Your task to perform on an android device: Open calendar and show me the fourth week of next month Image 0: 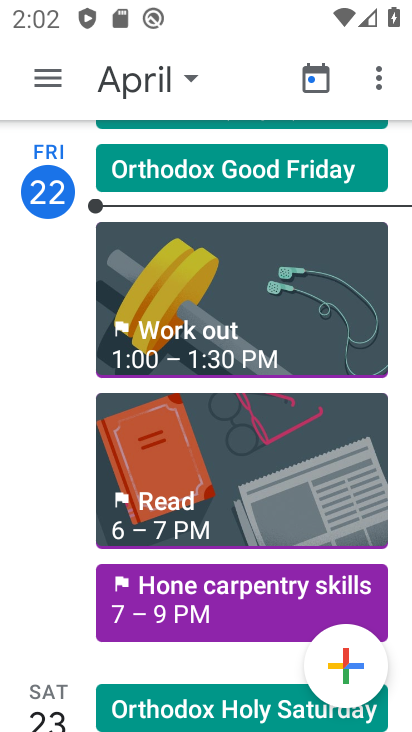
Step 0: press back button
Your task to perform on an android device: Open calendar and show me the fourth week of next month Image 1: 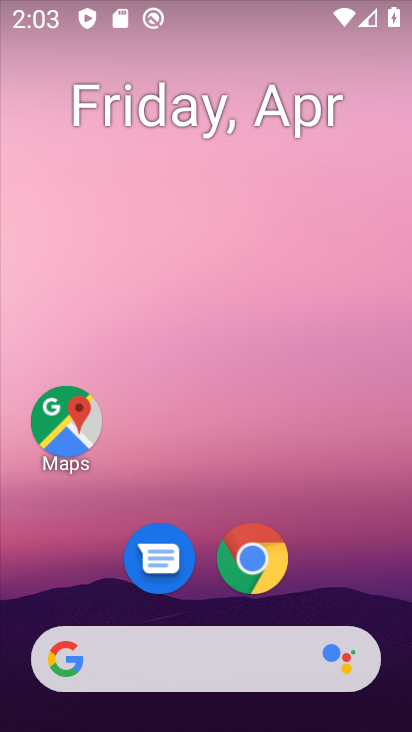
Step 1: drag from (221, 572) to (221, 58)
Your task to perform on an android device: Open calendar and show me the fourth week of next month Image 2: 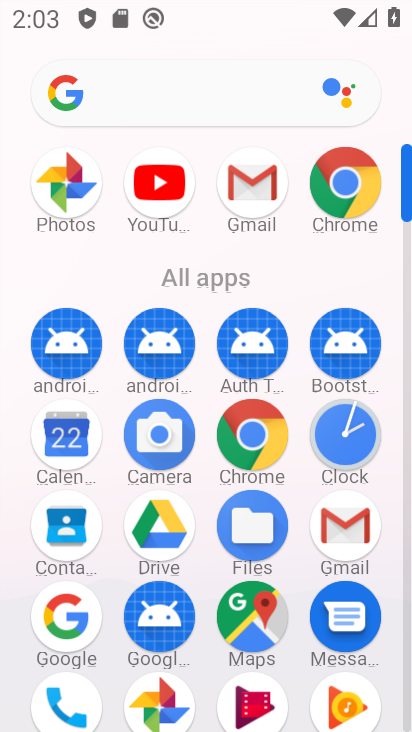
Step 2: click (68, 432)
Your task to perform on an android device: Open calendar and show me the fourth week of next month Image 3: 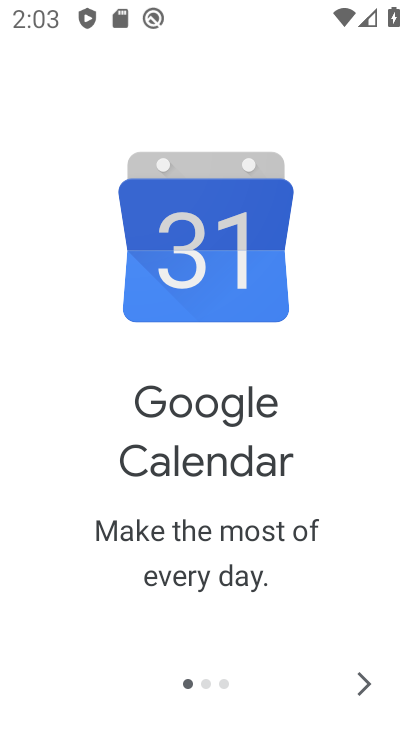
Step 3: click (354, 690)
Your task to perform on an android device: Open calendar and show me the fourth week of next month Image 4: 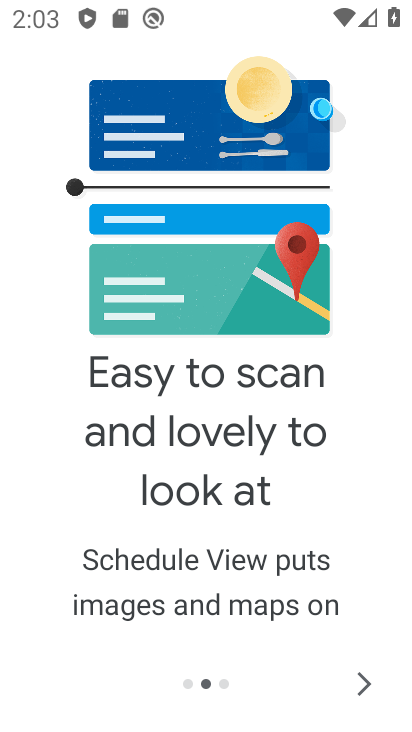
Step 4: click (361, 680)
Your task to perform on an android device: Open calendar and show me the fourth week of next month Image 5: 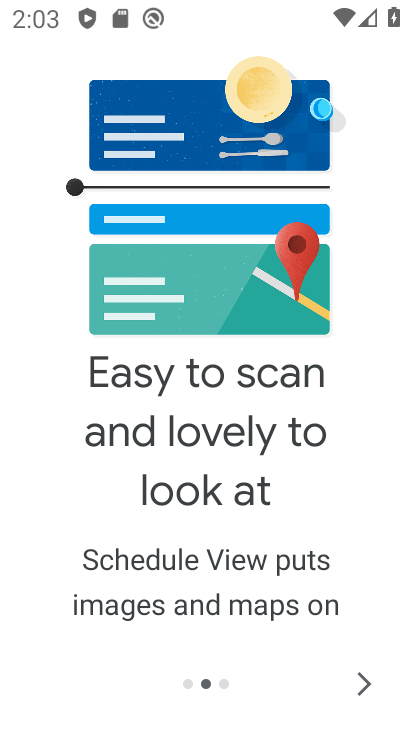
Step 5: click (361, 680)
Your task to perform on an android device: Open calendar and show me the fourth week of next month Image 6: 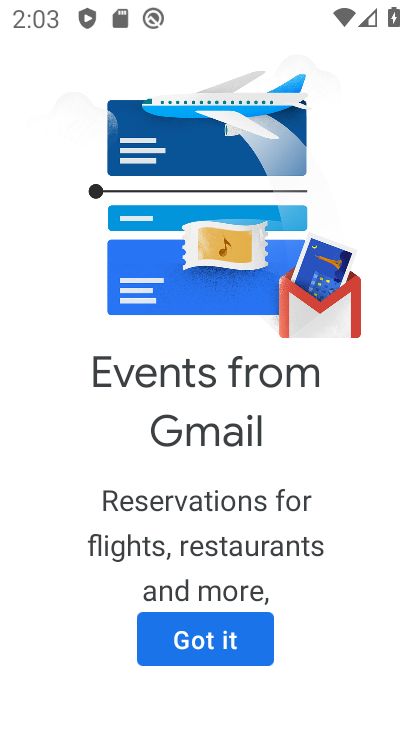
Step 6: click (231, 642)
Your task to perform on an android device: Open calendar and show me the fourth week of next month Image 7: 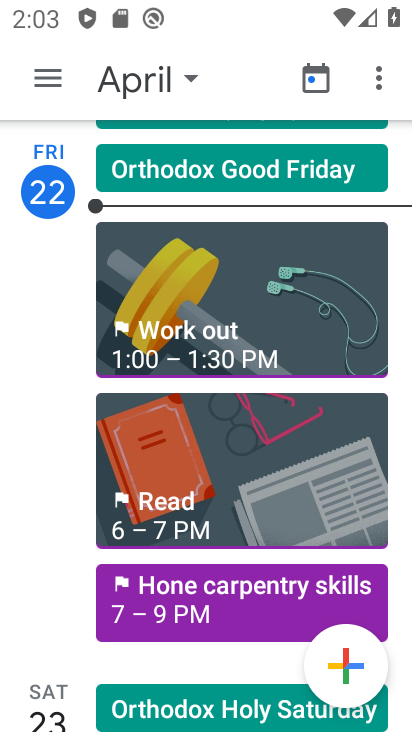
Step 7: click (189, 78)
Your task to perform on an android device: Open calendar and show me the fourth week of next month Image 8: 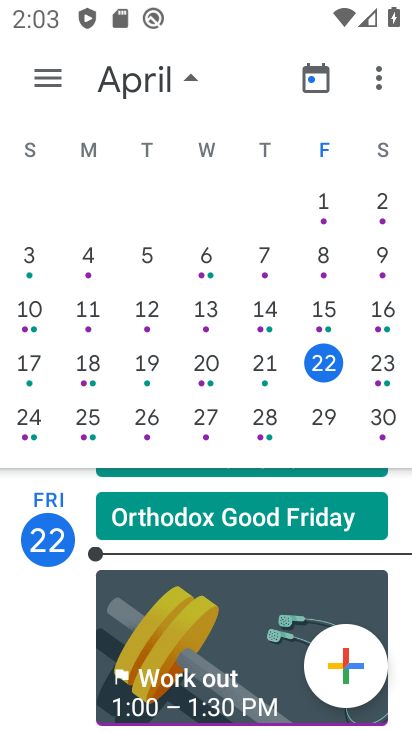
Step 8: drag from (353, 334) to (22, 289)
Your task to perform on an android device: Open calendar and show me the fourth week of next month Image 9: 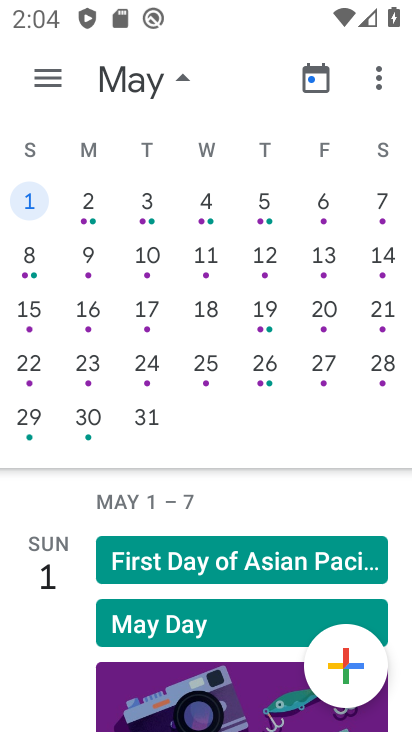
Step 9: click (96, 356)
Your task to perform on an android device: Open calendar and show me the fourth week of next month Image 10: 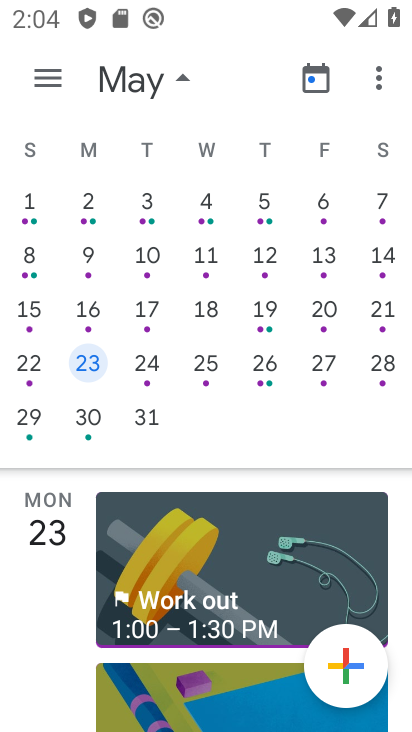
Step 10: task complete